Your task to perform on an android device: Open Google Maps and go to "Timeline" Image 0: 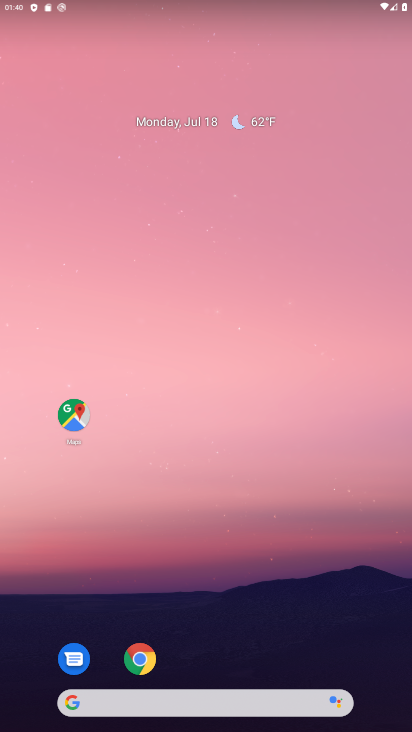
Step 0: drag from (289, 615) to (233, 165)
Your task to perform on an android device: Open Google Maps and go to "Timeline" Image 1: 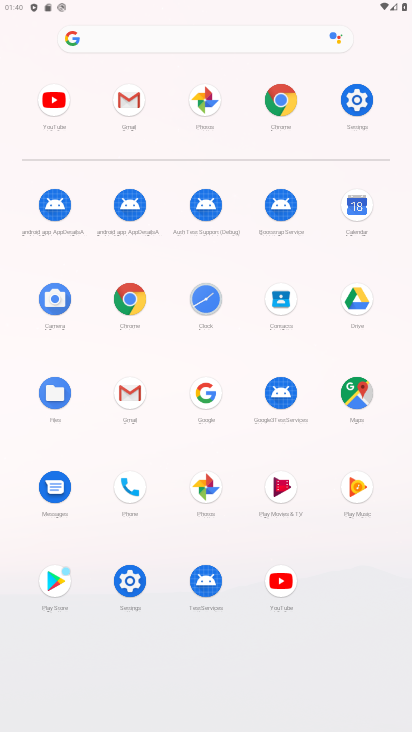
Step 1: click (365, 391)
Your task to perform on an android device: Open Google Maps and go to "Timeline" Image 2: 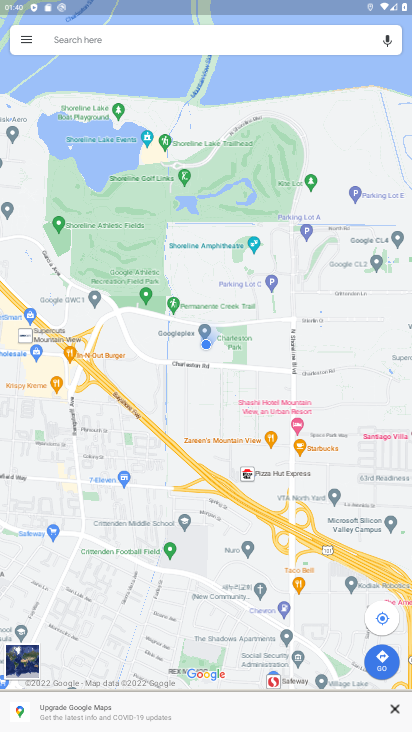
Step 2: click (17, 38)
Your task to perform on an android device: Open Google Maps and go to "Timeline" Image 3: 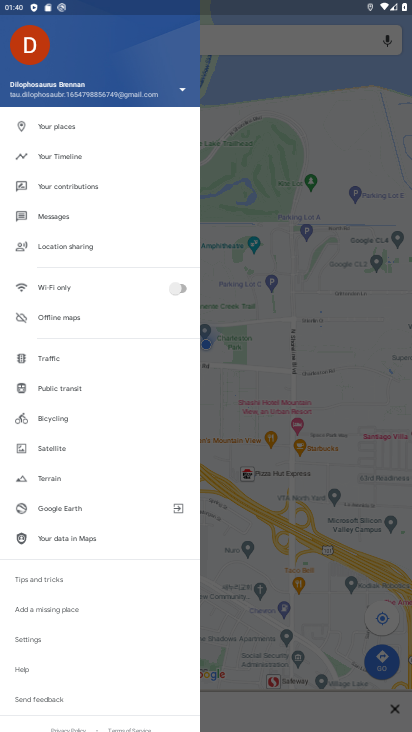
Step 3: click (67, 153)
Your task to perform on an android device: Open Google Maps and go to "Timeline" Image 4: 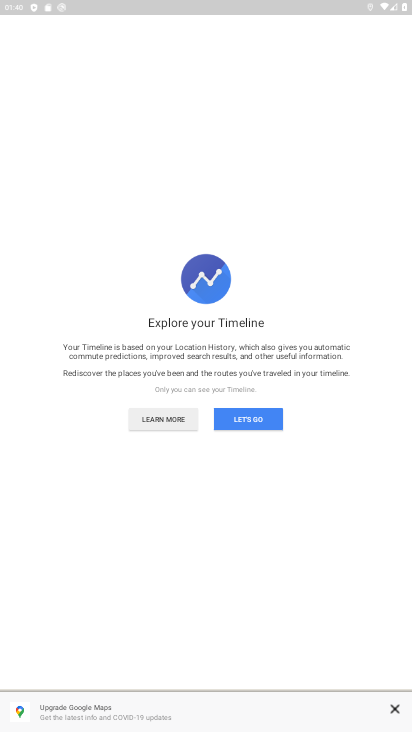
Step 4: click (235, 428)
Your task to perform on an android device: Open Google Maps and go to "Timeline" Image 5: 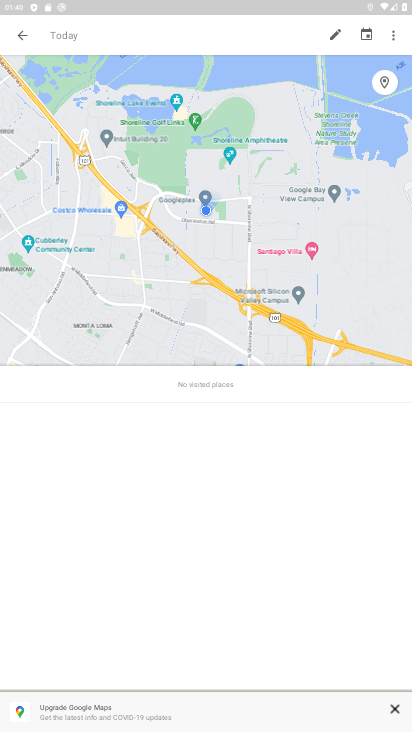
Step 5: task complete